Your task to perform on an android device: Open wifi settings Image 0: 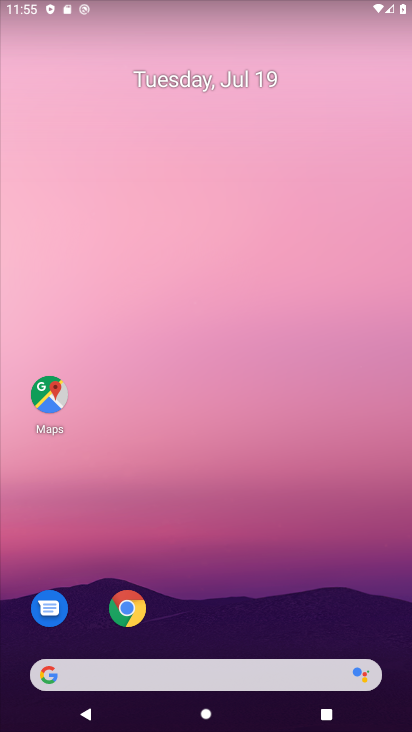
Step 0: drag from (181, 675) to (207, 188)
Your task to perform on an android device: Open wifi settings Image 1: 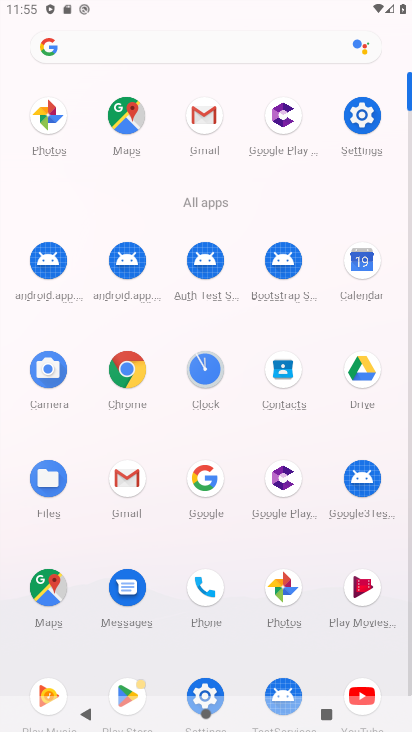
Step 1: click (362, 116)
Your task to perform on an android device: Open wifi settings Image 2: 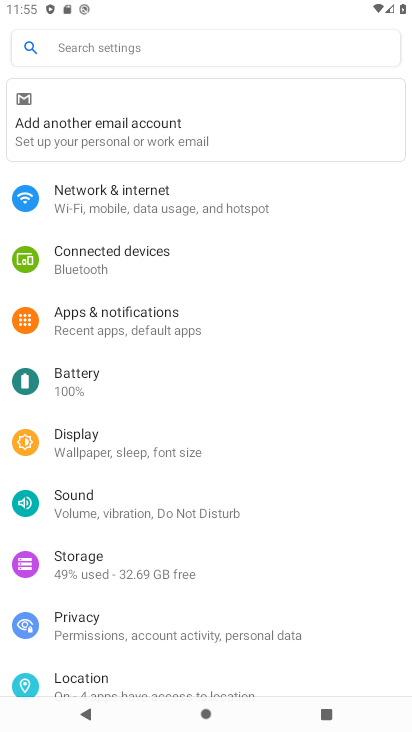
Step 2: click (117, 209)
Your task to perform on an android device: Open wifi settings Image 3: 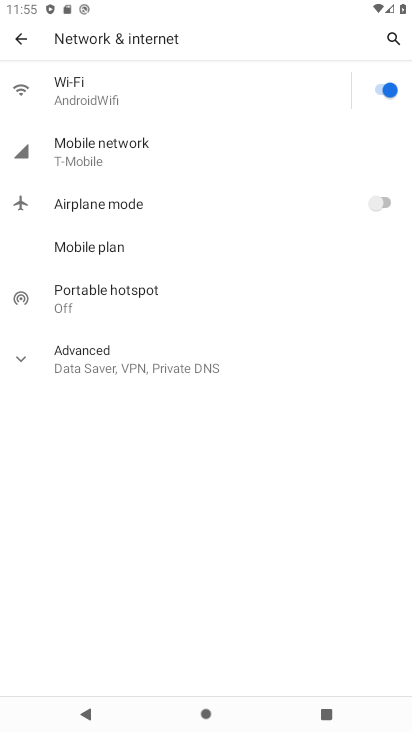
Step 3: click (85, 101)
Your task to perform on an android device: Open wifi settings Image 4: 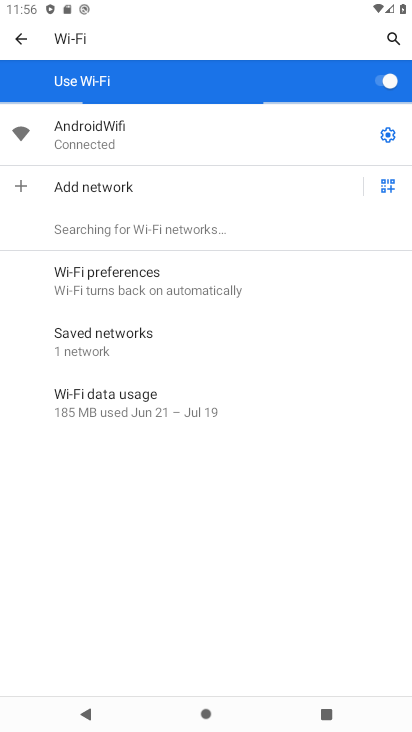
Step 4: click (388, 136)
Your task to perform on an android device: Open wifi settings Image 5: 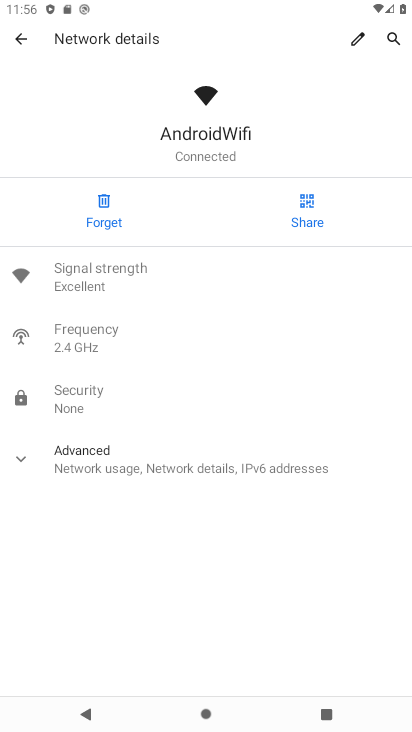
Step 5: task complete